Your task to perform on an android device: turn on the 24-hour format for clock Image 0: 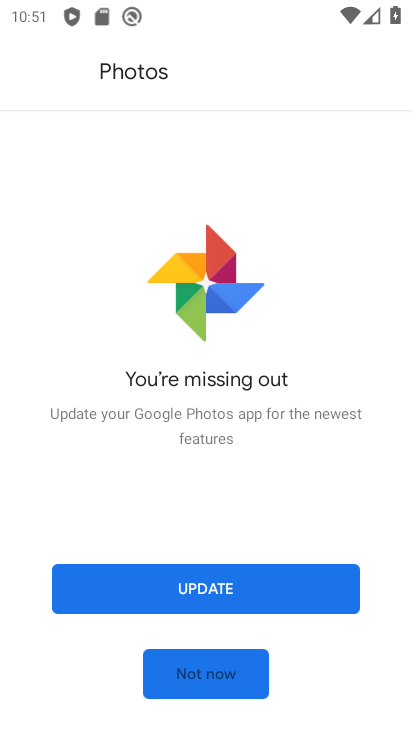
Step 0: press home button
Your task to perform on an android device: turn on the 24-hour format for clock Image 1: 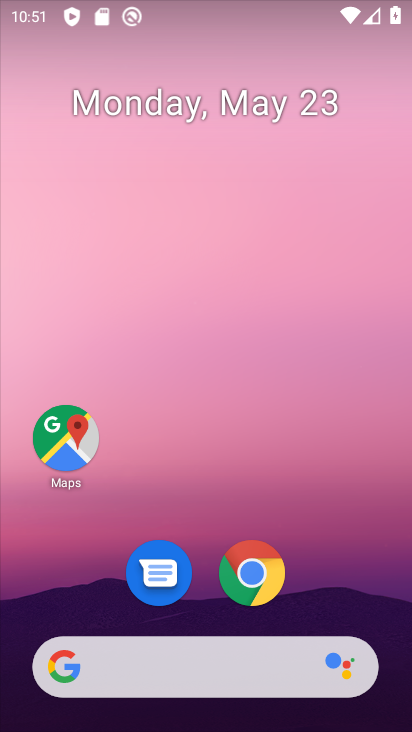
Step 1: drag from (359, 556) to (299, 41)
Your task to perform on an android device: turn on the 24-hour format for clock Image 2: 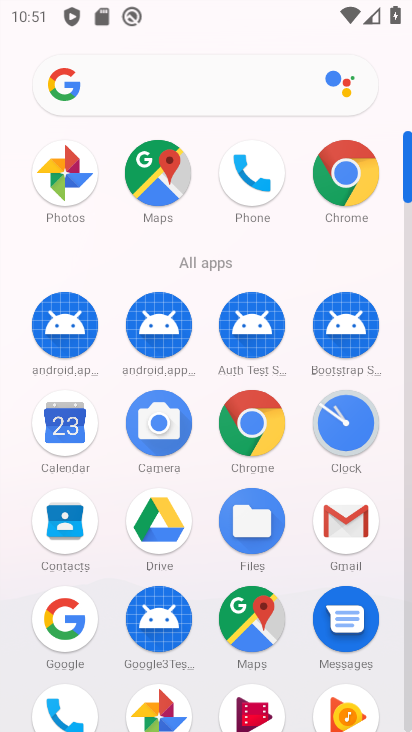
Step 2: drag from (203, 627) to (227, 210)
Your task to perform on an android device: turn on the 24-hour format for clock Image 3: 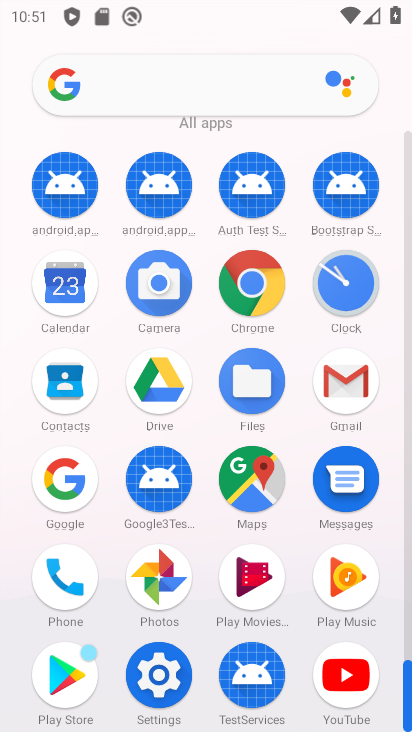
Step 3: click (148, 676)
Your task to perform on an android device: turn on the 24-hour format for clock Image 4: 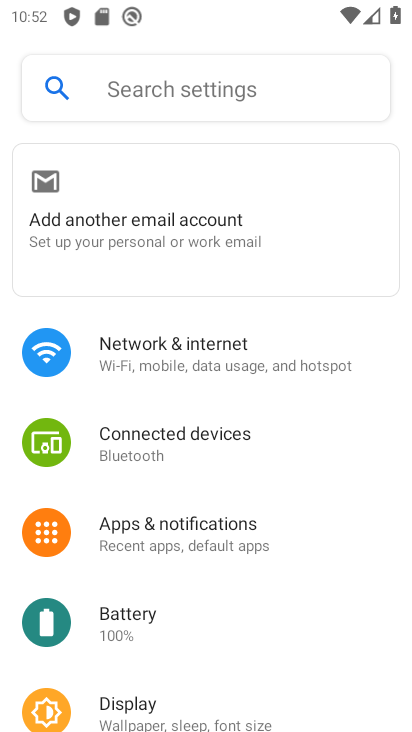
Step 4: press home button
Your task to perform on an android device: turn on the 24-hour format for clock Image 5: 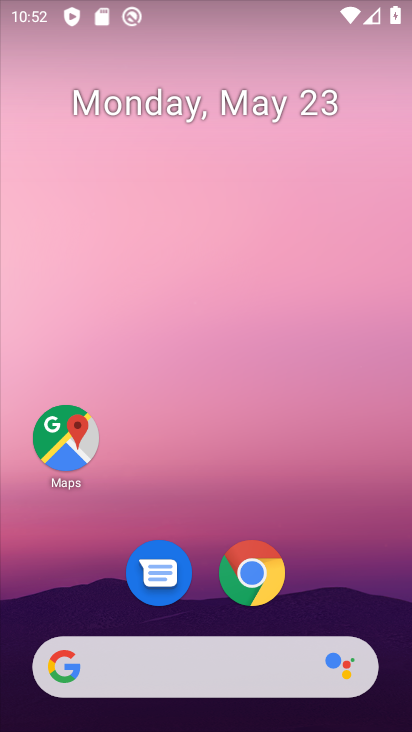
Step 5: drag from (335, 588) to (273, 141)
Your task to perform on an android device: turn on the 24-hour format for clock Image 6: 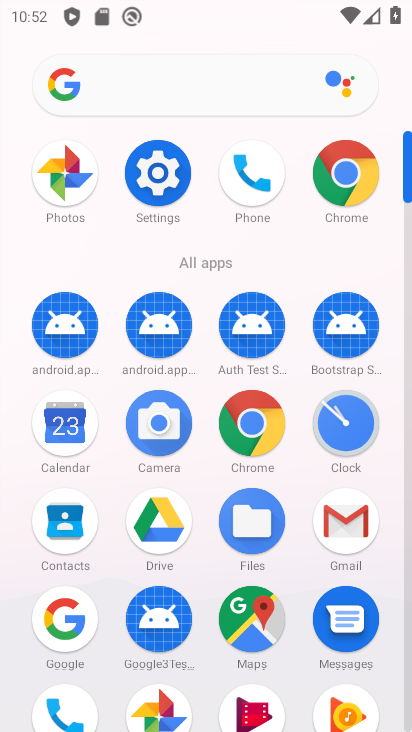
Step 6: click (363, 428)
Your task to perform on an android device: turn on the 24-hour format for clock Image 7: 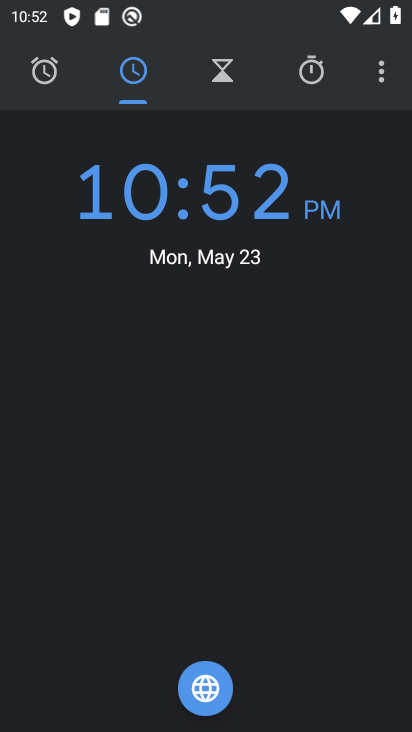
Step 7: drag from (390, 87) to (235, 138)
Your task to perform on an android device: turn on the 24-hour format for clock Image 8: 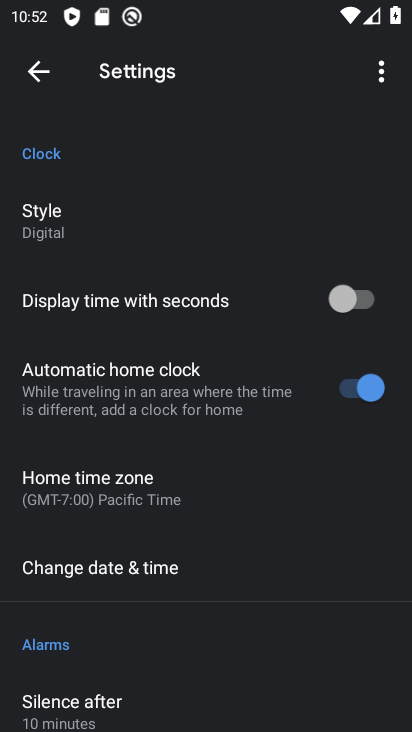
Step 8: click (178, 574)
Your task to perform on an android device: turn on the 24-hour format for clock Image 9: 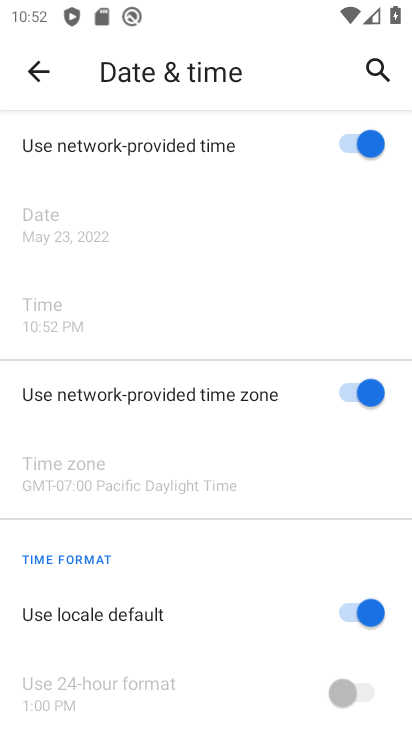
Step 9: drag from (219, 565) to (222, 279)
Your task to perform on an android device: turn on the 24-hour format for clock Image 10: 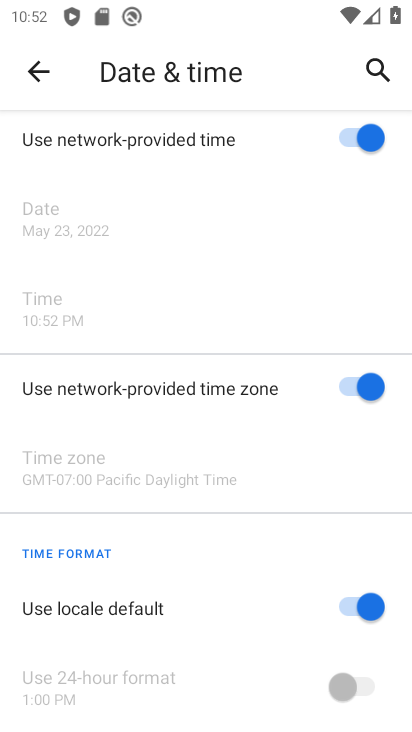
Step 10: click (352, 612)
Your task to perform on an android device: turn on the 24-hour format for clock Image 11: 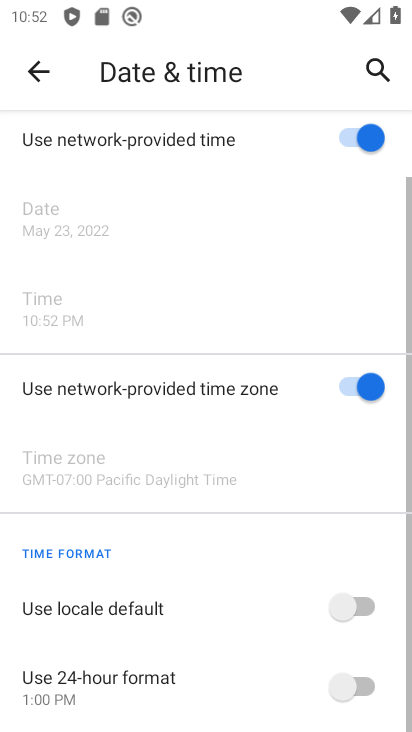
Step 11: click (366, 685)
Your task to perform on an android device: turn on the 24-hour format for clock Image 12: 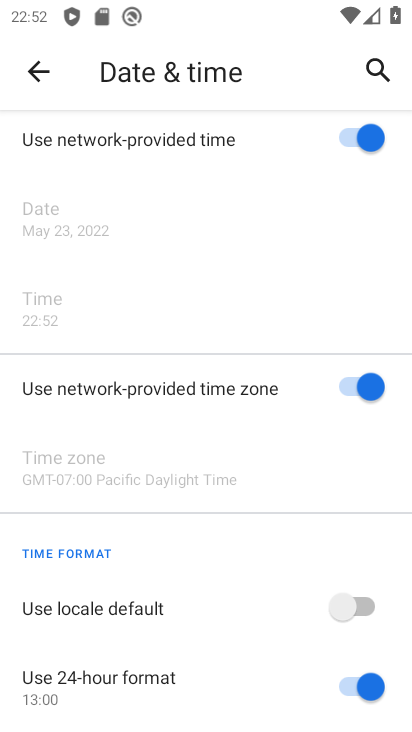
Step 12: task complete